Your task to perform on an android device: Open accessibility settings Image 0: 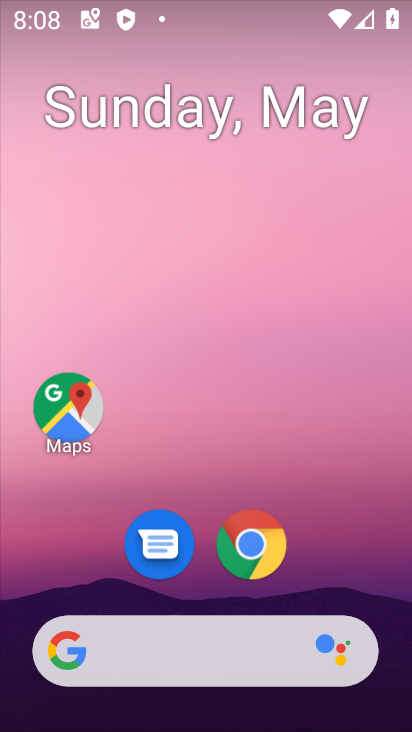
Step 0: drag from (391, 570) to (264, 2)
Your task to perform on an android device: Open accessibility settings Image 1: 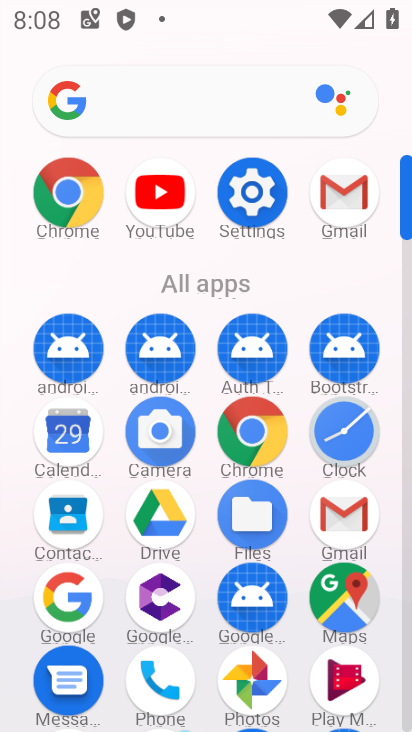
Step 1: drag from (6, 545) to (24, 255)
Your task to perform on an android device: Open accessibility settings Image 2: 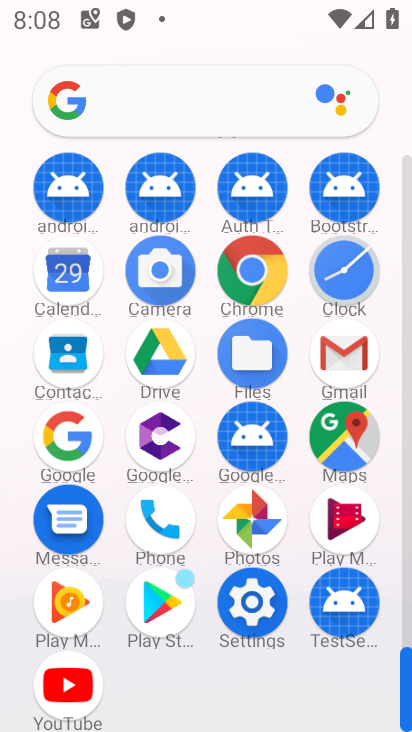
Step 2: click (251, 595)
Your task to perform on an android device: Open accessibility settings Image 3: 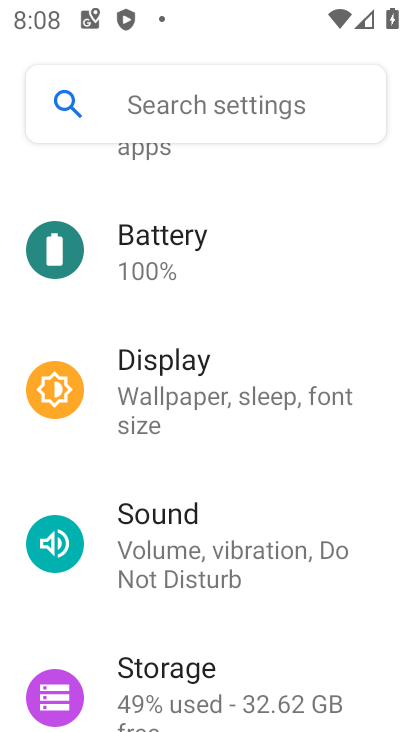
Step 3: drag from (256, 640) to (225, 191)
Your task to perform on an android device: Open accessibility settings Image 4: 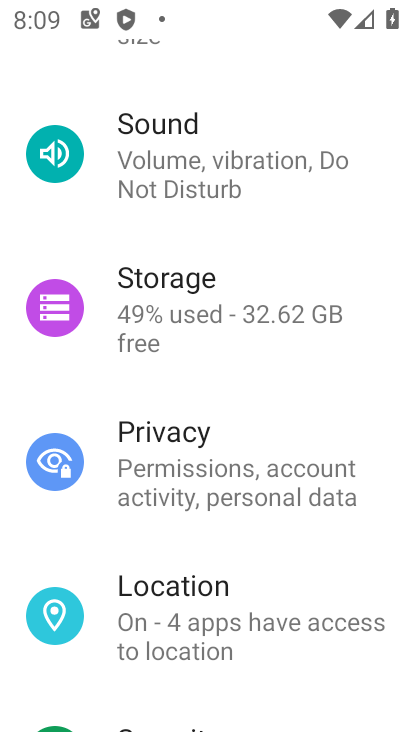
Step 4: drag from (307, 641) to (275, 180)
Your task to perform on an android device: Open accessibility settings Image 5: 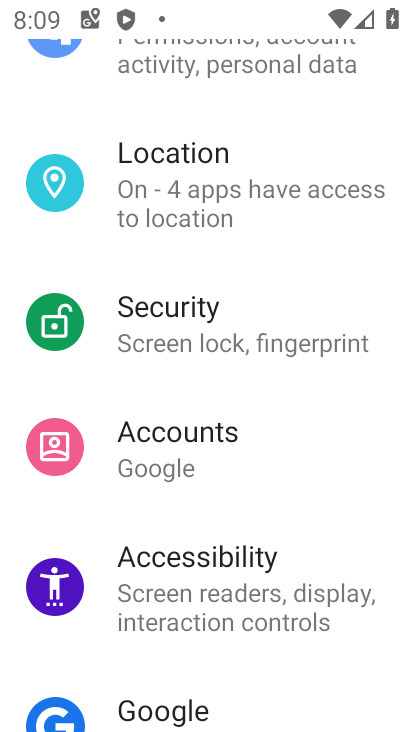
Step 5: click (212, 571)
Your task to perform on an android device: Open accessibility settings Image 6: 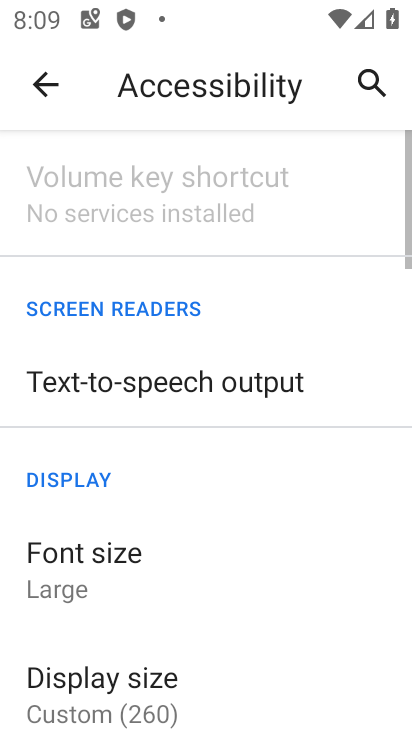
Step 6: drag from (214, 567) to (240, 126)
Your task to perform on an android device: Open accessibility settings Image 7: 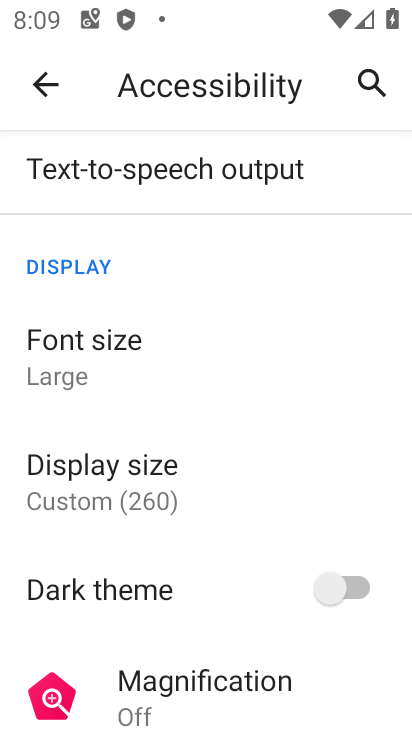
Step 7: drag from (241, 530) to (237, 173)
Your task to perform on an android device: Open accessibility settings Image 8: 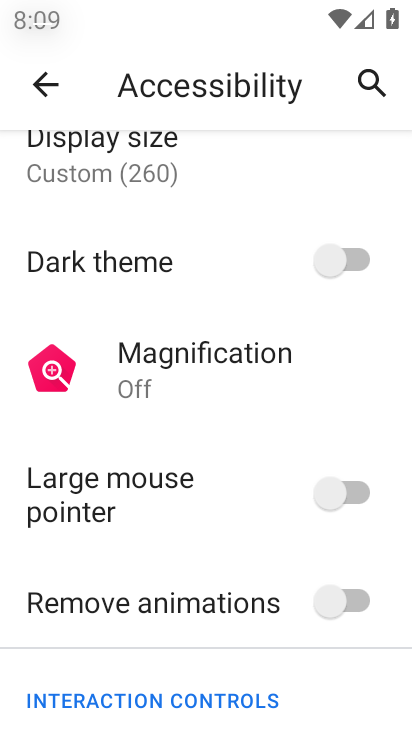
Step 8: drag from (217, 561) to (221, 262)
Your task to perform on an android device: Open accessibility settings Image 9: 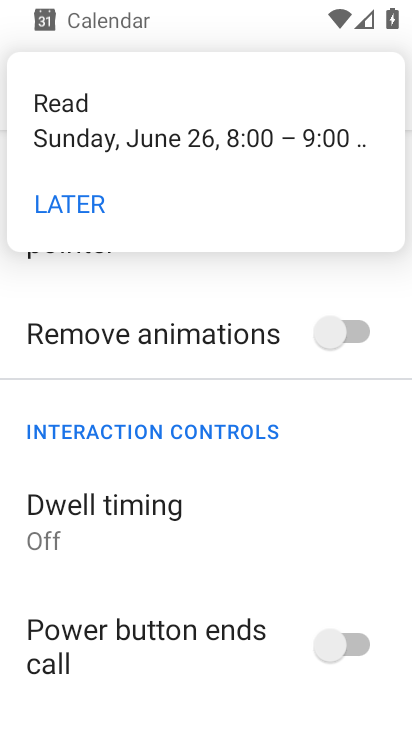
Step 9: click (75, 200)
Your task to perform on an android device: Open accessibility settings Image 10: 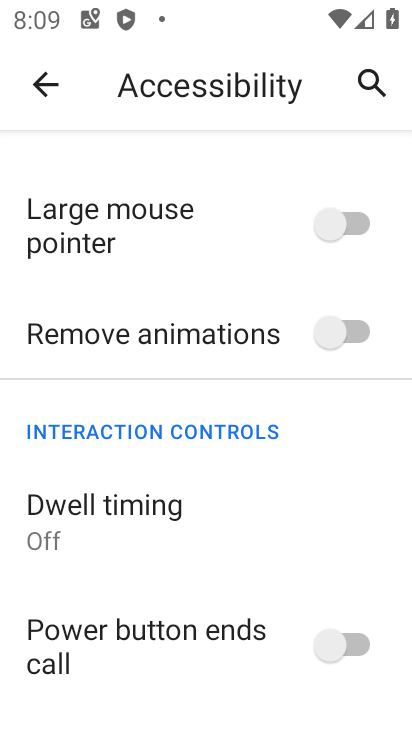
Step 10: task complete